Your task to perform on an android device: turn off improve location accuracy Image 0: 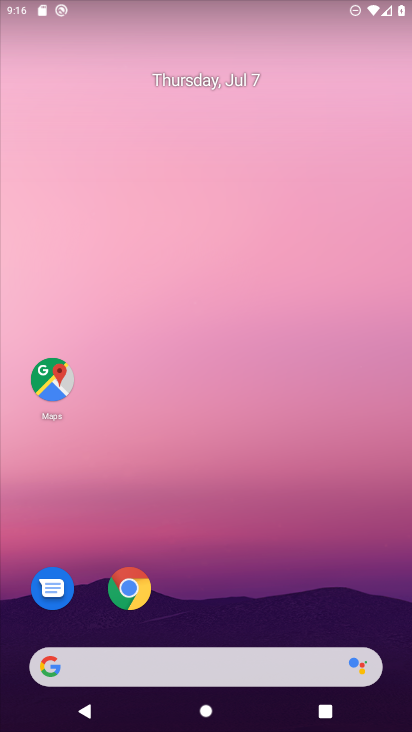
Step 0: drag from (293, 6) to (242, 581)
Your task to perform on an android device: turn off improve location accuracy Image 1: 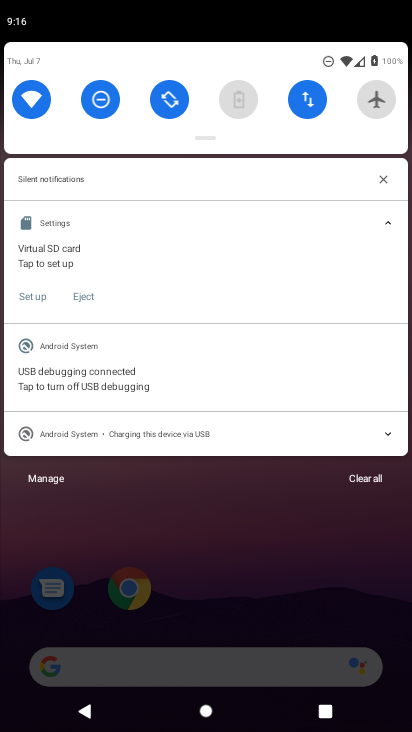
Step 1: drag from (255, 65) to (271, 549)
Your task to perform on an android device: turn off improve location accuracy Image 2: 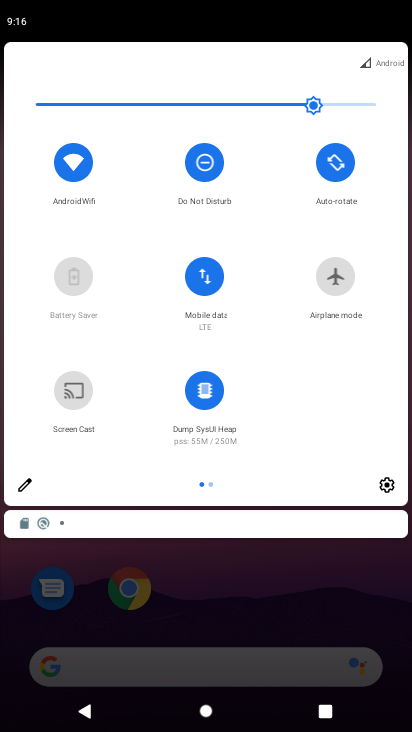
Step 2: click (386, 491)
Your task to perform on an android device: turn off improve location accuracy Image 3: 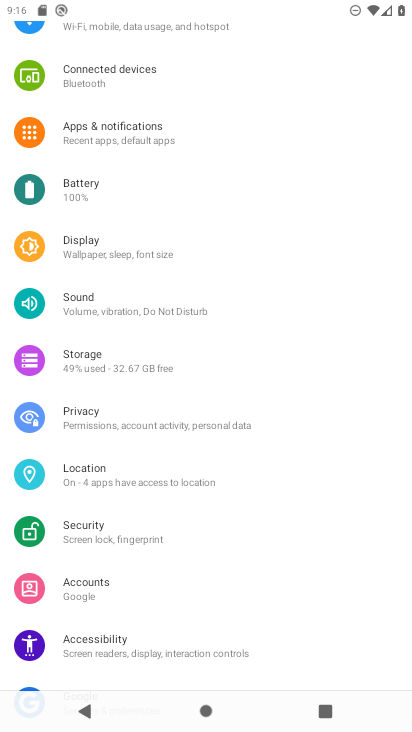
Step 3: click (104, 459)
Your task to perform on an android device: turn off improve location accuracy Image 4: 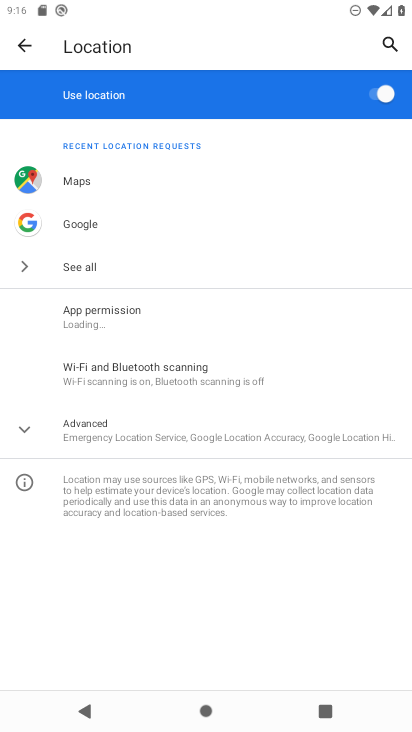
Step 4: click (144, 424)
Your task to perform on an android device: turn off improve location accuracy Image 5: 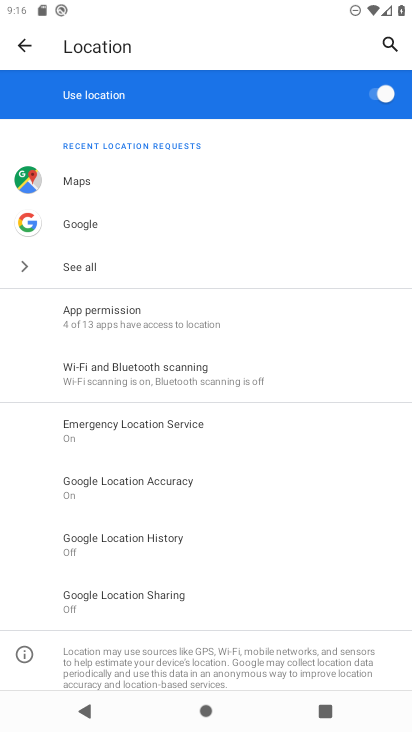
Step 5: click (167, 482)
Your task to perform on an android device: turn off improve location accuracy Image 6: 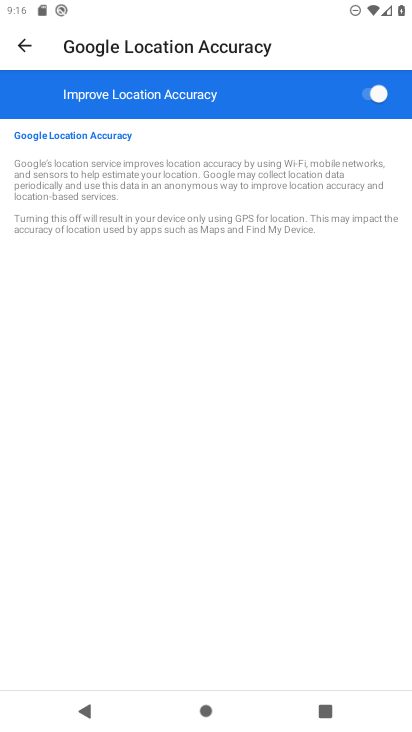
Step 6: click (374, 100)
Your task to perform on an android device: turn off improve location accuracy Image 7: 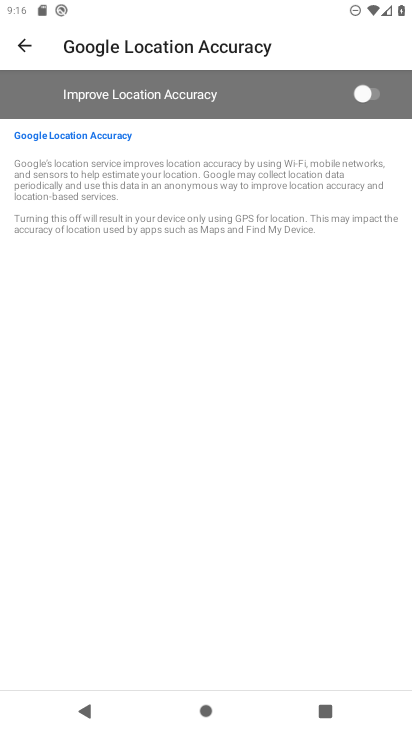
Step 7: task complete